Your task to perform on an android device: change alarm snooze length Image 0: 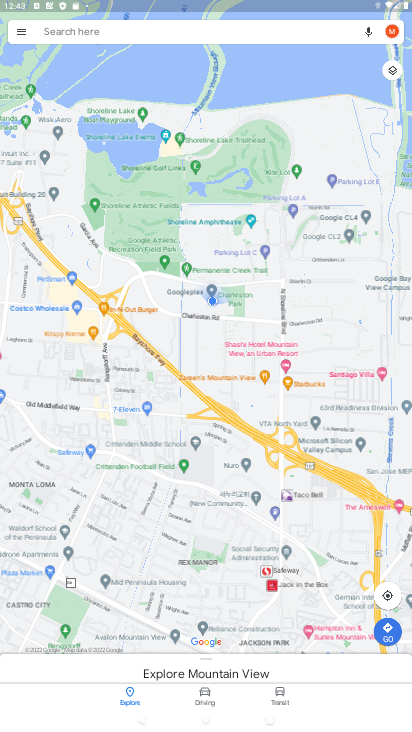
Step 0: press home button
Your task to perform on an android device: change alarm snooze length Image 1: 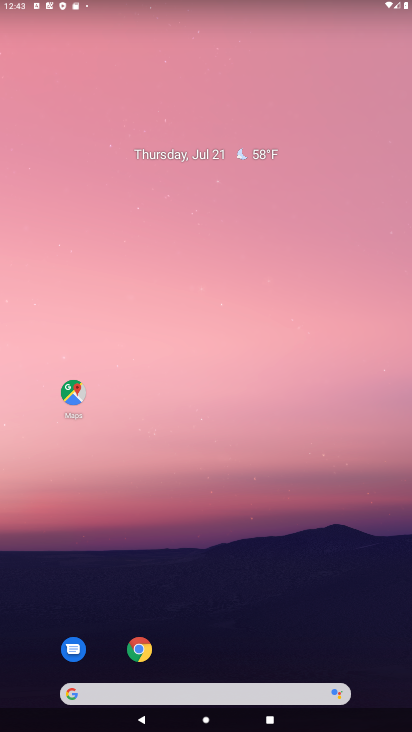
Step 1: drag from (364, 657) to (330, 65)
Your task to perform on an android device: change alarm snooze length Image 2: 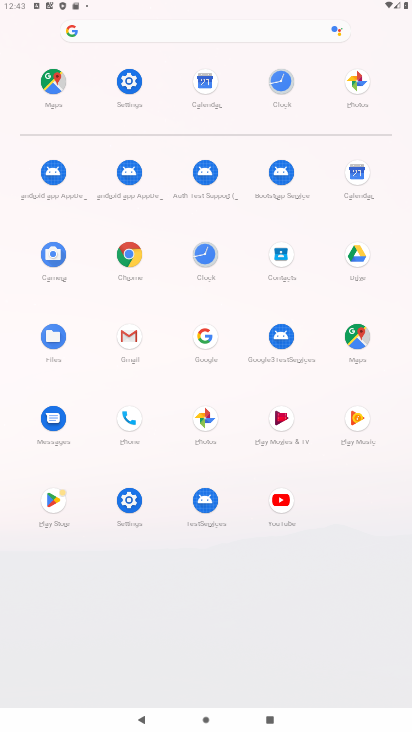
Step 2: click (207, 253)
Your task to perform on an android device: change alarm snooze length Image 3: 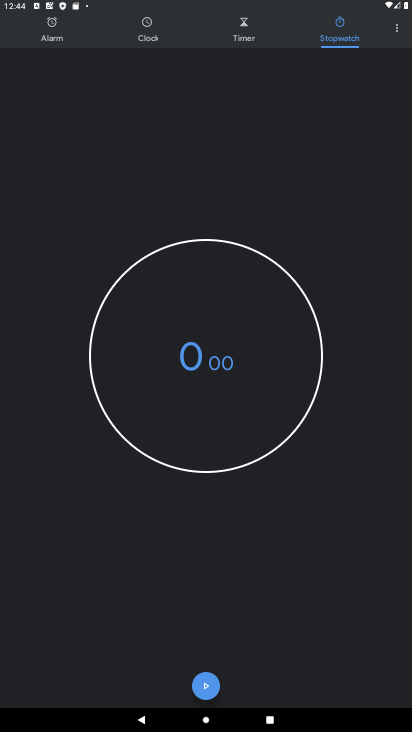
Step 3: click (399, 33)
Your task to perform on an android device: change alarm snooze length Image 4: 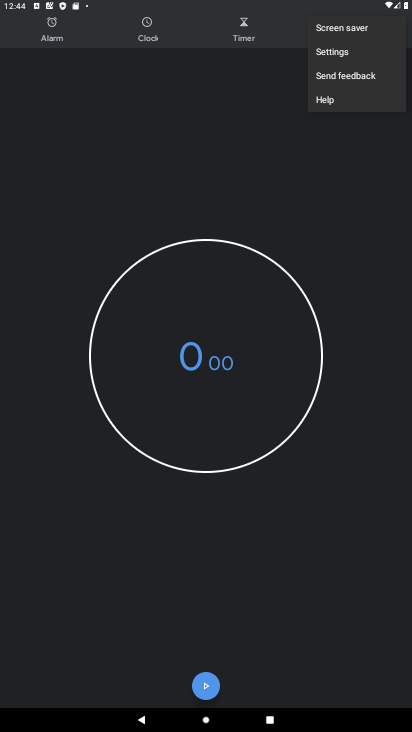
Step 4: click (331, 53)
Your task to perform on an android device: change alarm snooze length Image 5: 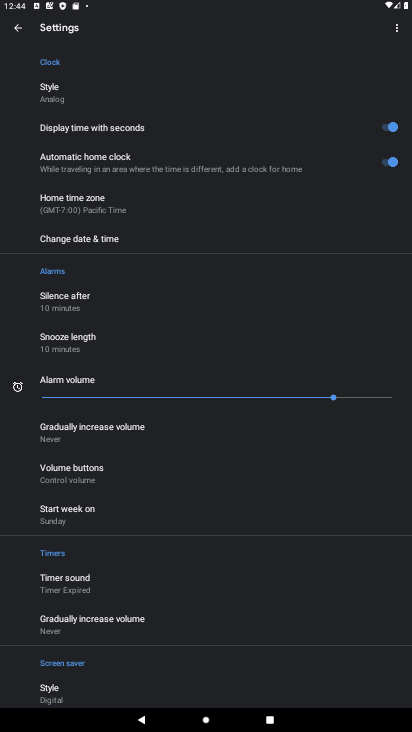
Step 5: click (75, 337)
Your task to perform on an android device: change alarm snooze length Image 6: 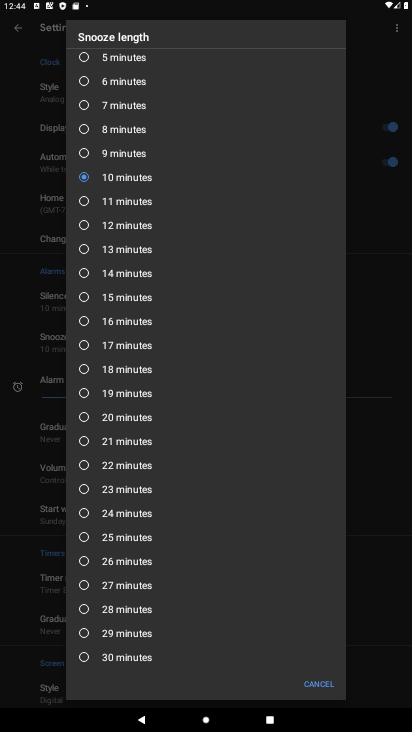
Step 6: click (79, 299)
Your task to perform on an android device: change alarm snooze length Image 7: 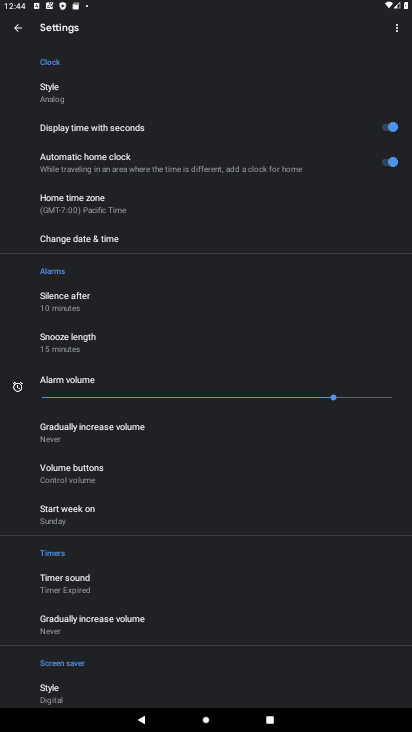
Step 7: task complete